Your task to perform on an android device: Open settings on Google Maps Image 0: 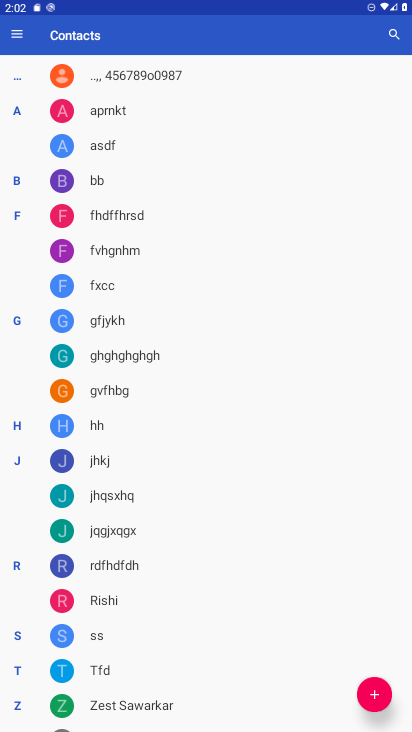
Step 0: press home button
Your task to perform on an android device: Open settings on Google Maps Image 1: 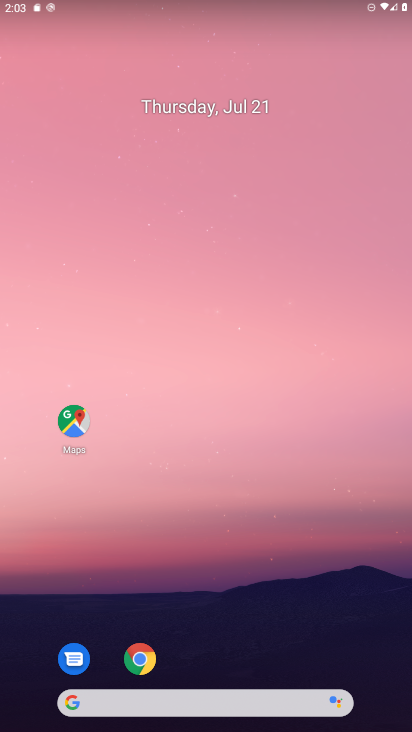
Step 1: drag from (62, 412) to (226, 20)
Your task to perform on an android device: Open settings on Google Maps Image 2: 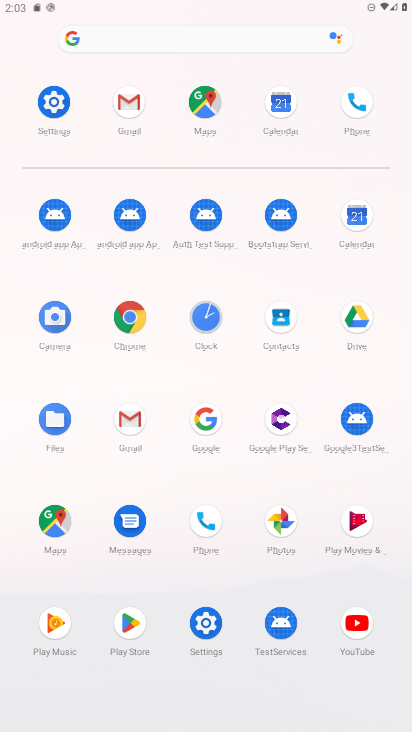
Step 2: click (61, 524)
Your task to perform on an android device: Open settings on Google Maps Image 3: 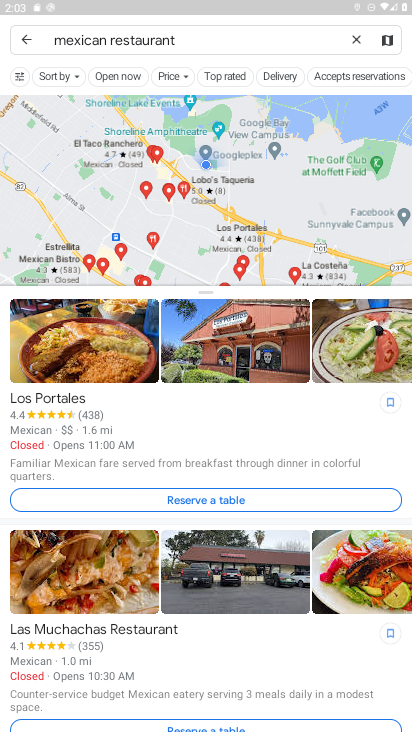
Step 3: click (353, 39)
Your task to perform on an android device: Open settings on Google Maps Image 4: 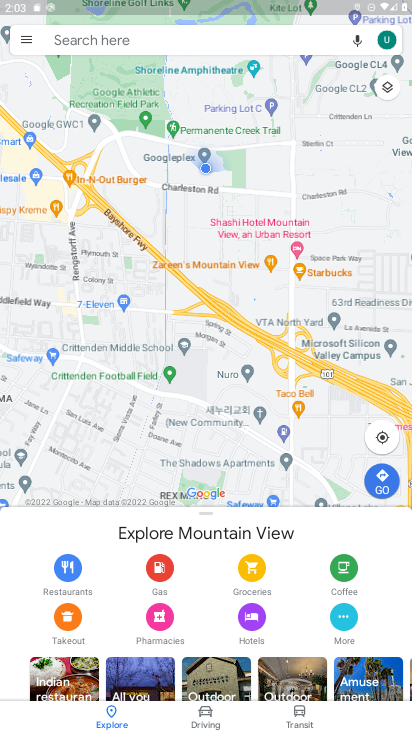
Step 4: click (22, 42)
Your task to perform on an android device: Open settings on Google Maps Image 5: 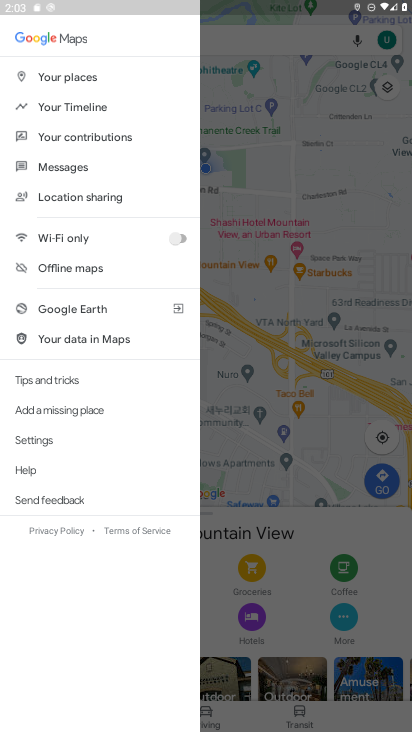
Step 5: click (33, 441)
Your task to perform on an android device: Open settings on Google Maps Image 6: 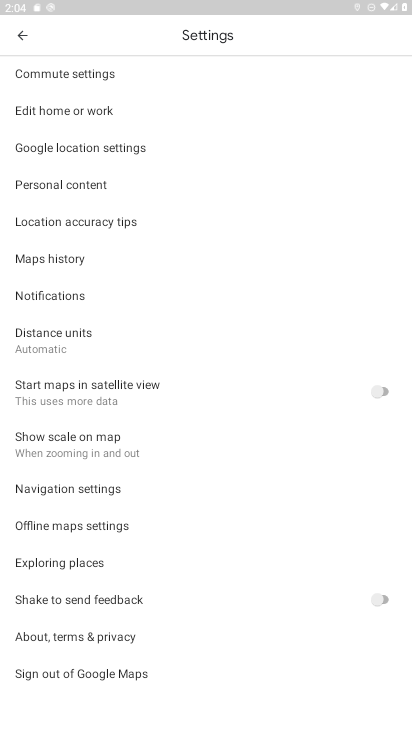
Step 6: task complete